Your task to perform on an android device: Add jbl charge 4 to the cart on bestbuy.com Image 0: 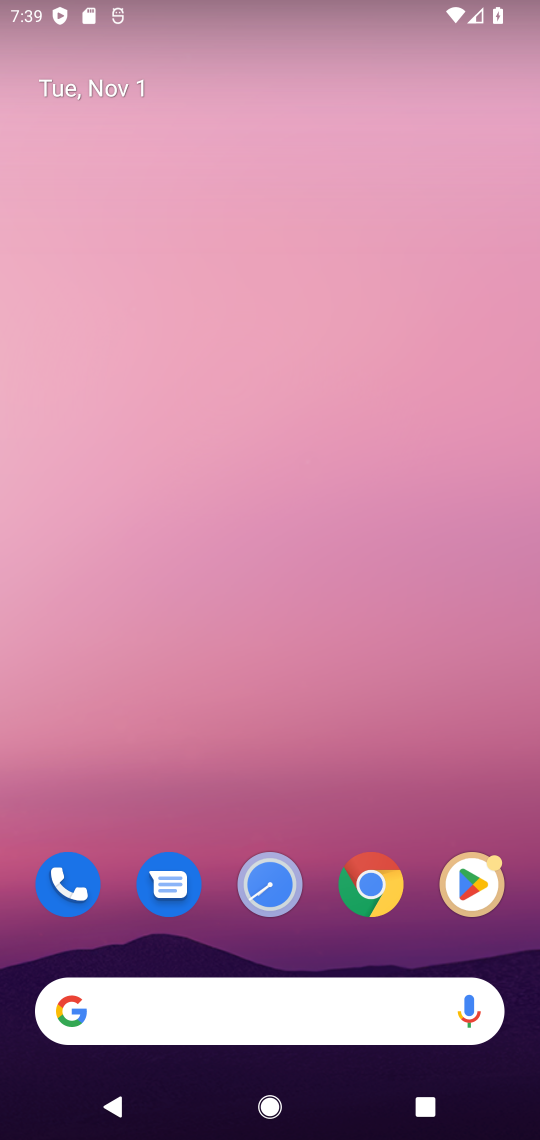
Step 0: click (373, 884)
Your task to perform on an android device: Add jbl charge 4 to the cart on bestbuy.com Image 1: 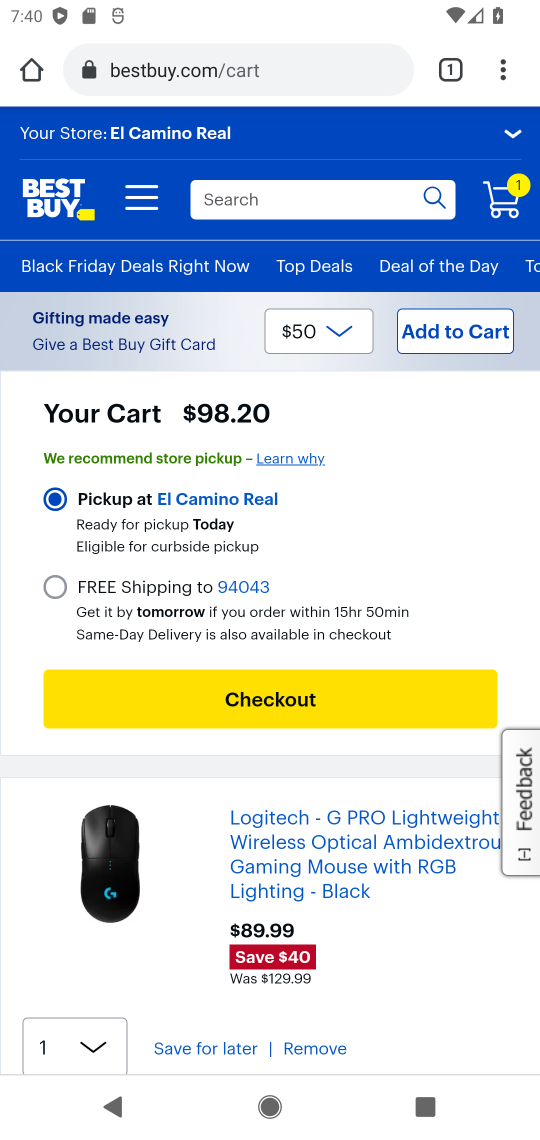
Step 1: click (312, 69)
Your task to perform on an android device: Add jbl charge 4 to the cart on bestbuy.com Image 2: 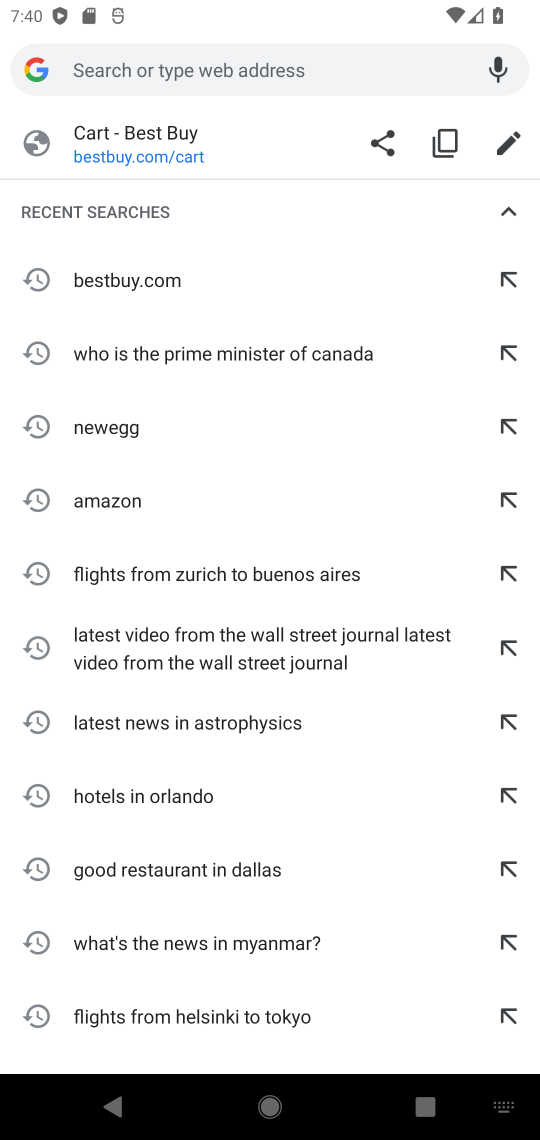
Step 2: type "bestbuy.com"
Your task to perform on an android device: Add jbl charge 4 to the cart on bestbuy.com Image 3: 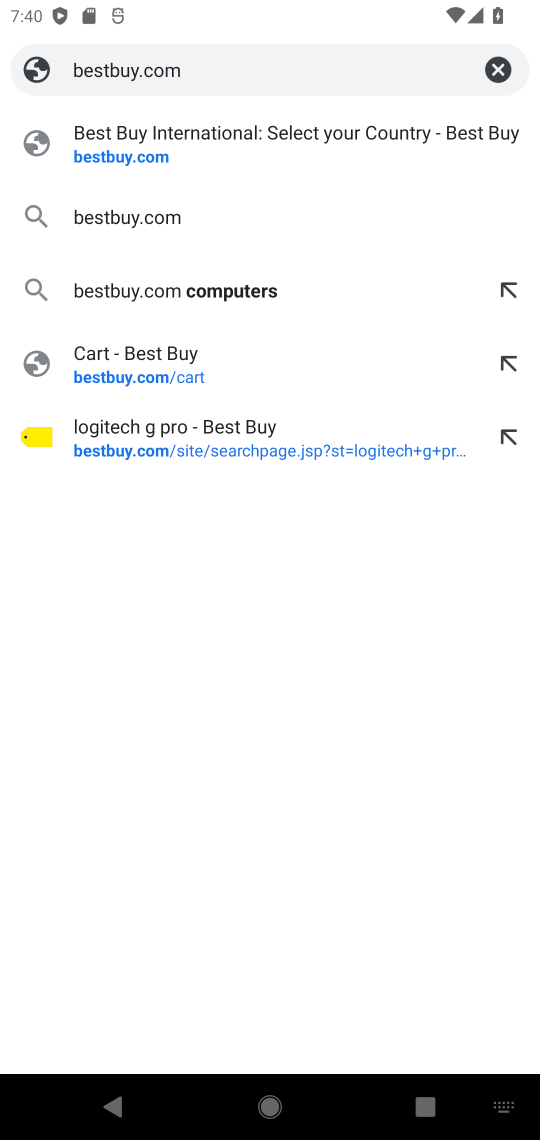
Step 3: click (106, 216)
Your task to perform on an android device: Add jbl charge 4 to the cart on bestbuy.com Image 4: 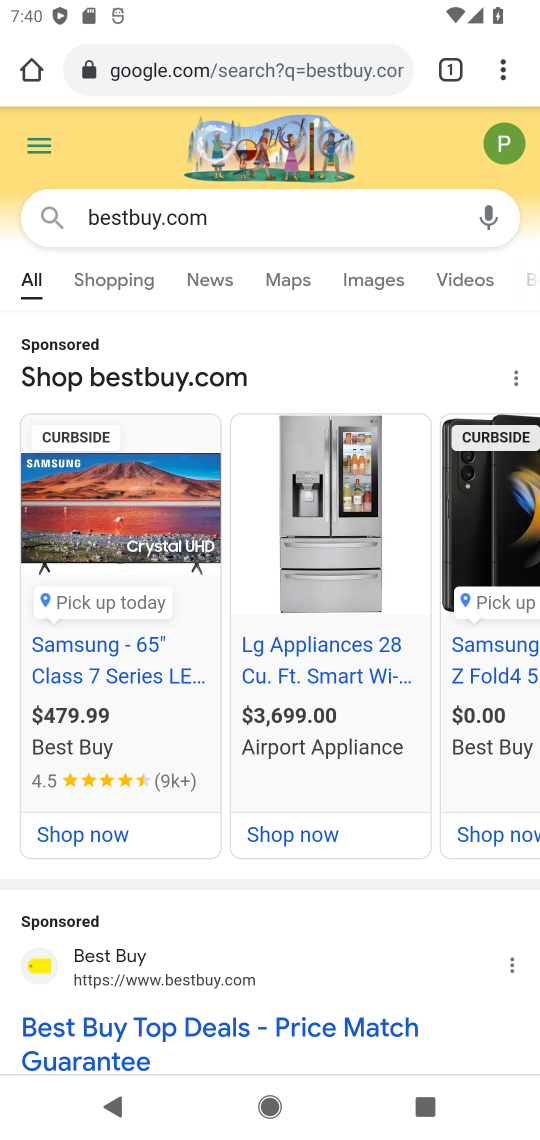
Step 4: drag from (297, 934) to (395, 309)
Your task to perform on an android device: Add jbl charge 4 to the cart on bestbuy.com Image 5: 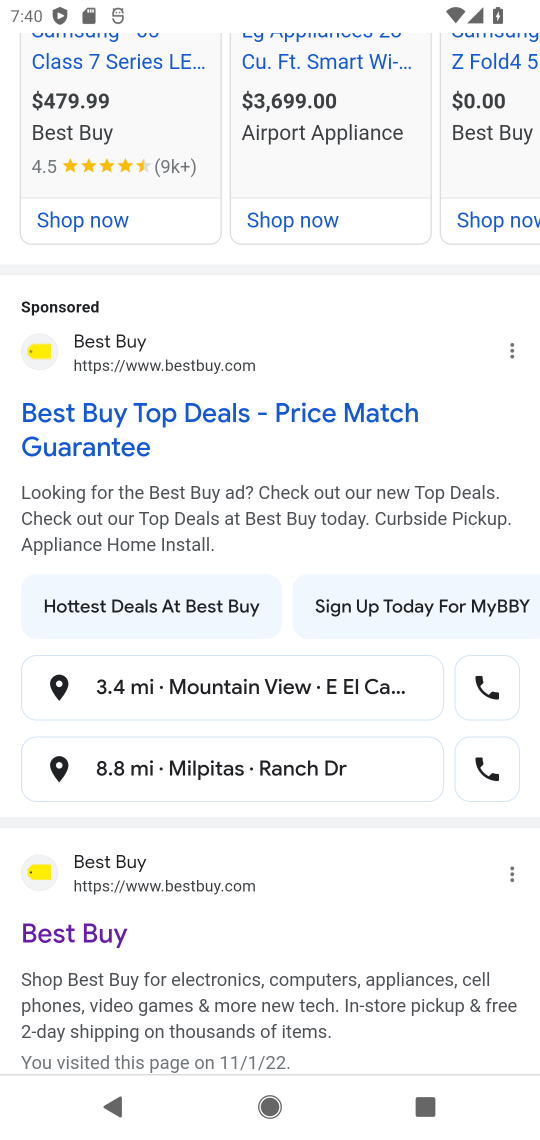
Step 5: click (97, 931)
Your task to perform on an android device: Add jbl charge 4 to the cart on bestbuy.com Image 6: 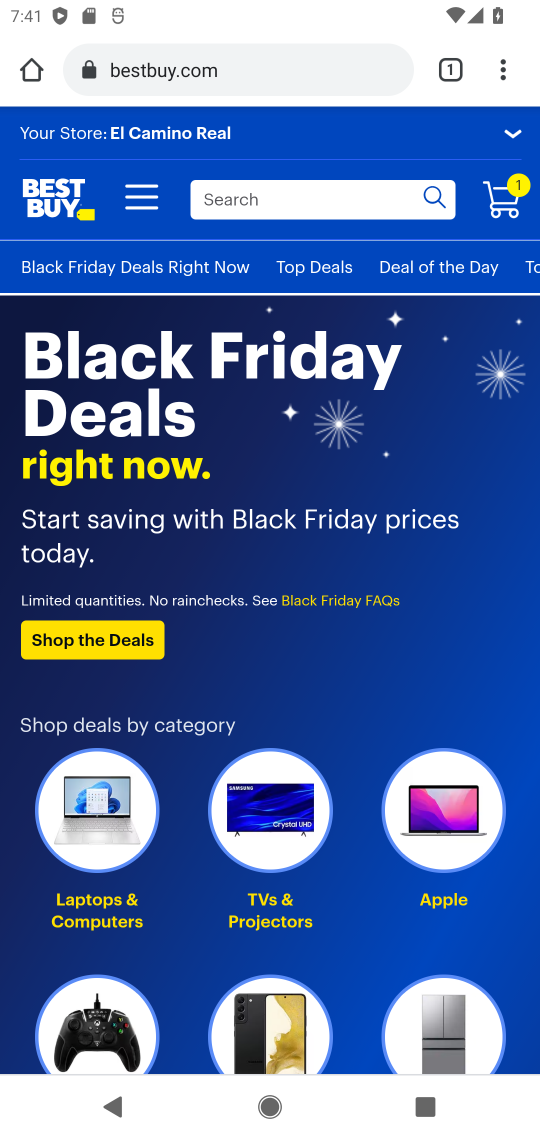
Step 6: click (329, 189)
Your task to perform on an android device: Add jbl charge 4 to the cart on bestbuy.com Image 7: 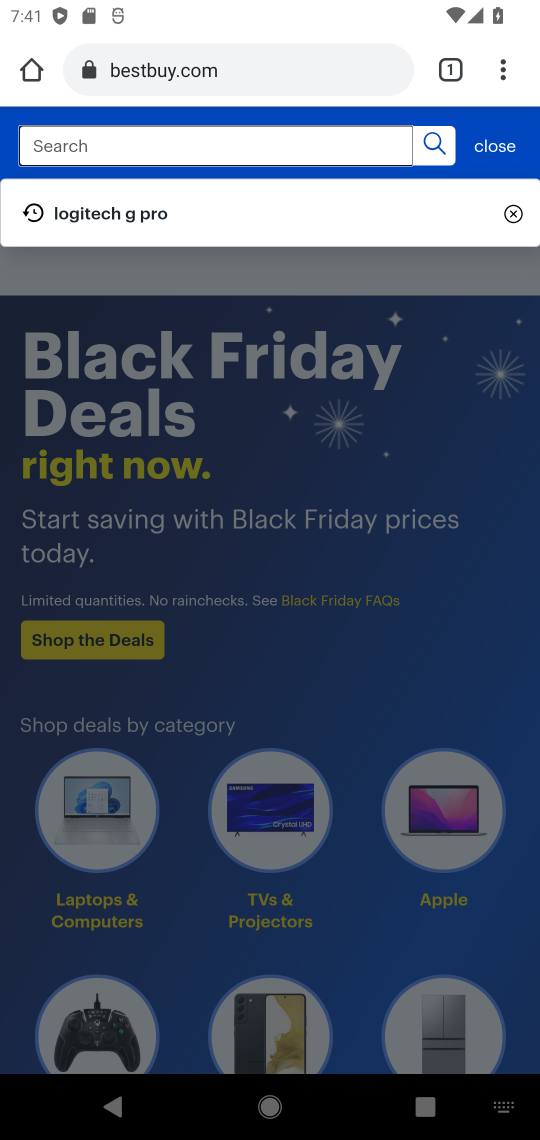
Step 7: type "jbl charger 4"
Your task to perform on an android device: Add jbl charge 4 to the cart on bestbuy.com Image 8: 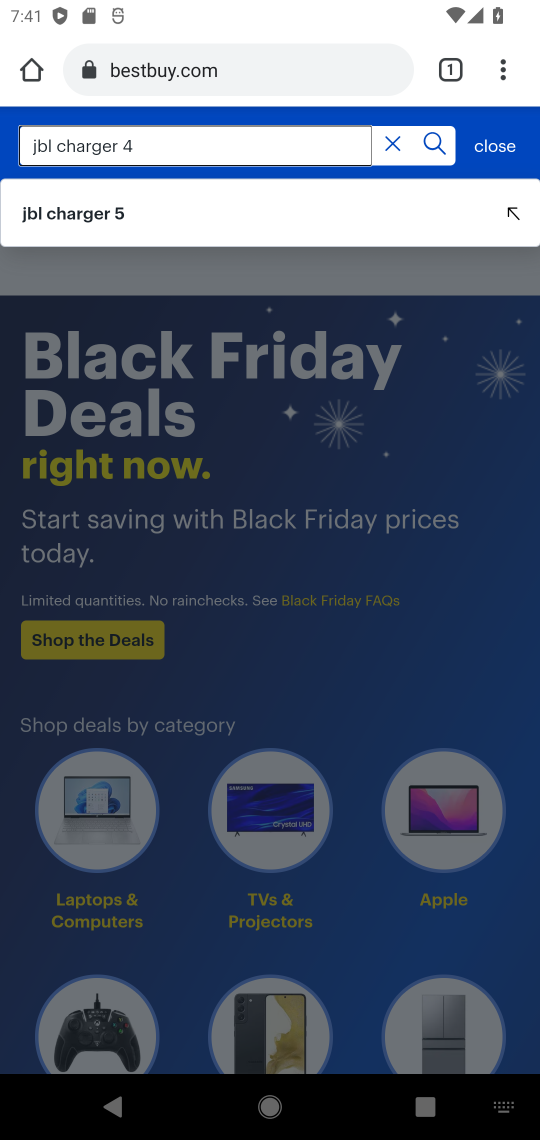
Step 8: click (432, 139)
Your task to perform on an android device: Add jbl charge 4 to the cart on bestbuy.com Image 9: 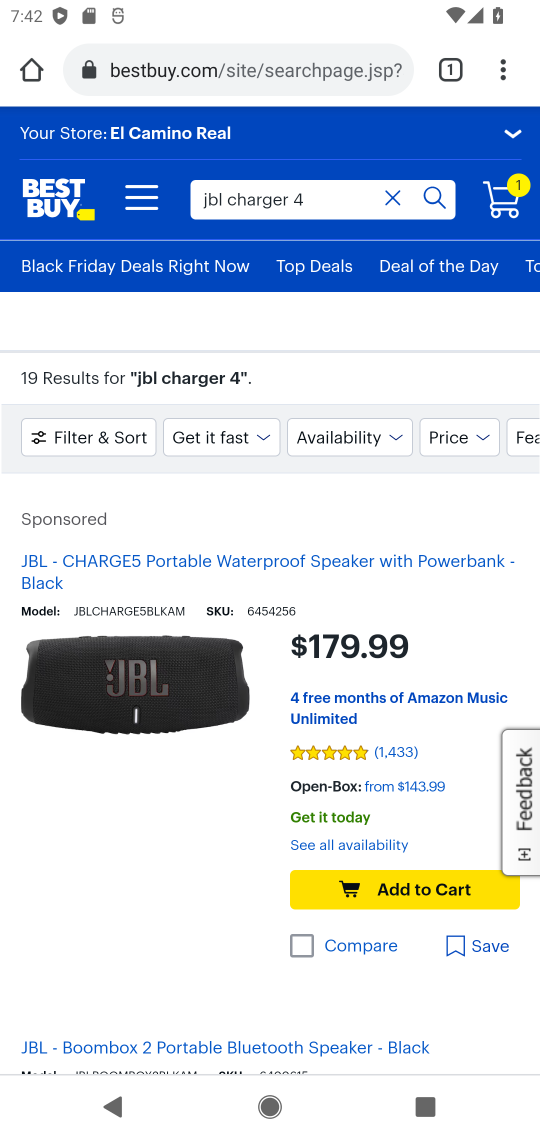
Step 9: click (404, 887)
Your task to perform on an android device: Add jbl charge 4 to the cart on bestbuy.com Image 10: 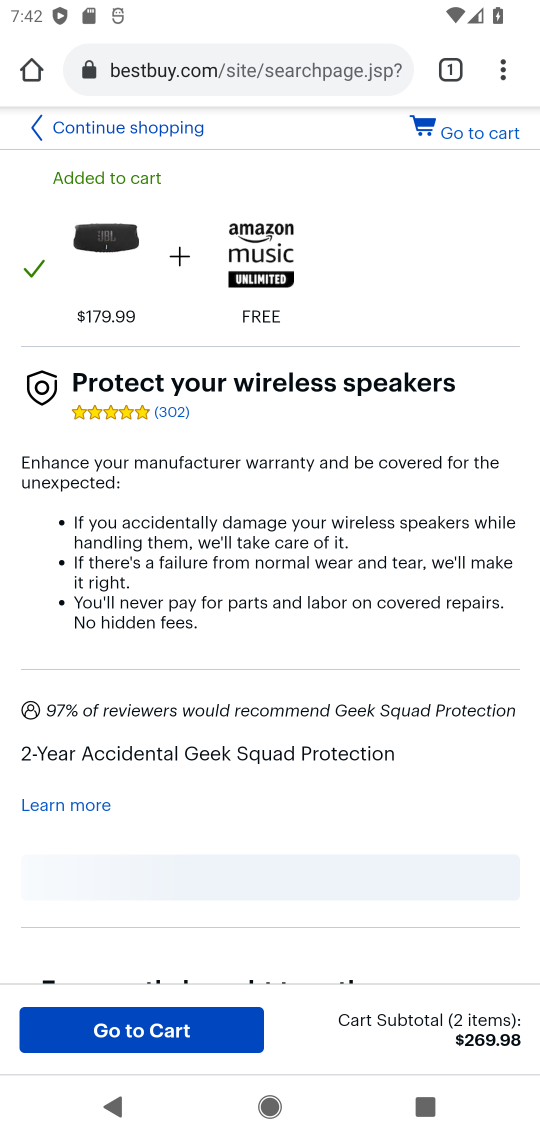
Step 10: click (182, 1027)
Your task to perform on an android device: Add jbl charge 4 to the cart on bestbuy.com Image 11: 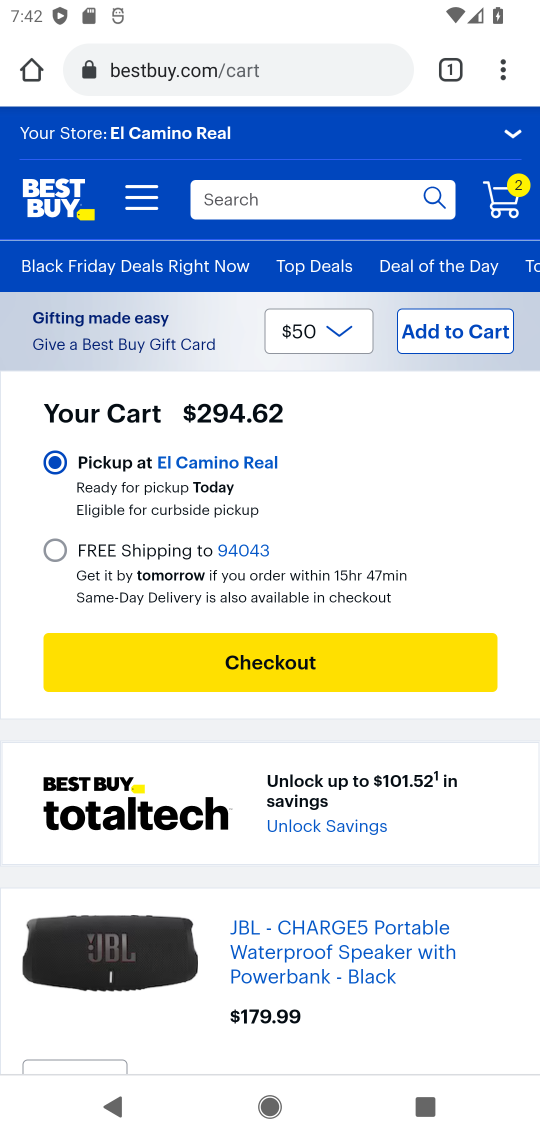
Step 11: task complete